Your task to perform on an android device: Toggle the flashlight Image 0: 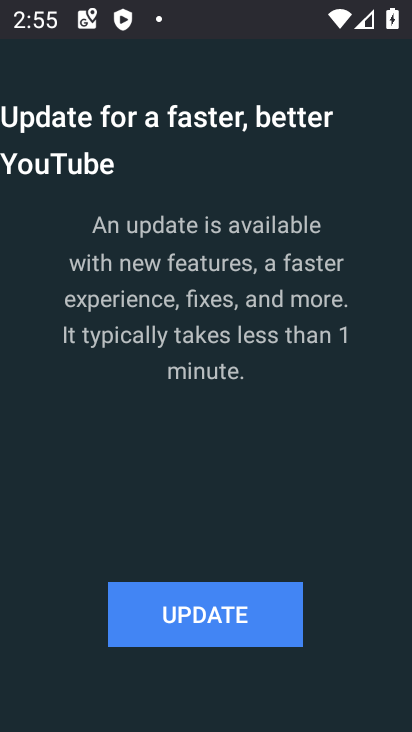
Step 0: drag from (224, 5) to (207, 434)
Your task to perform on an android device: Toggle the flashlight Image 1: 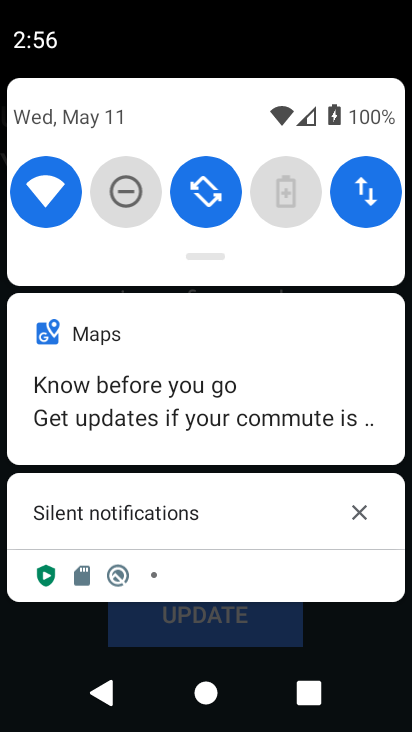
Step 1: task complete